Your task to perform on an android device: install app "Flipkart Online Shopping App" Image 0: 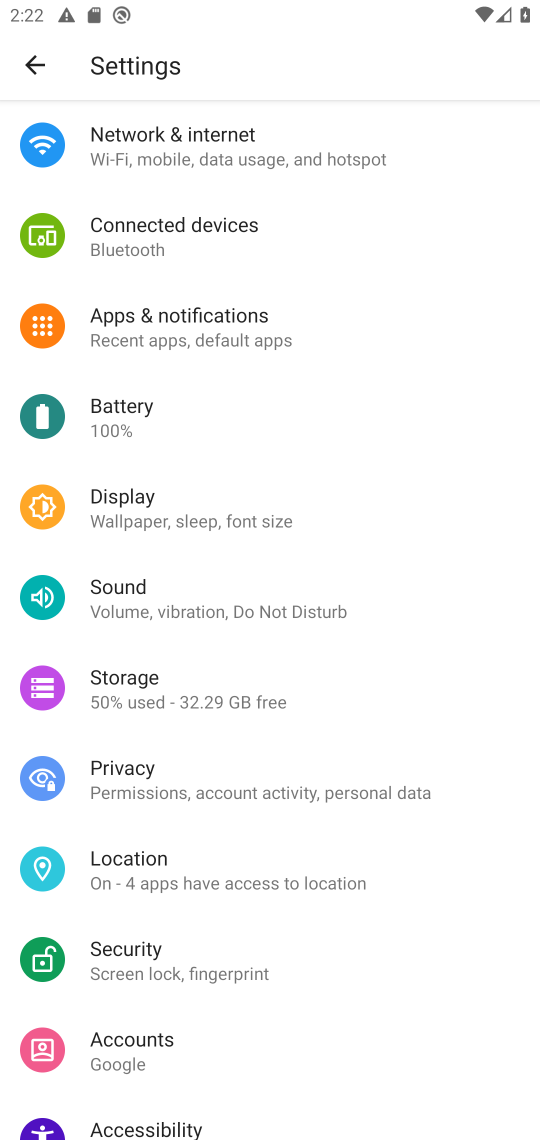
Step 0: task complete